Your task to perform on an android device: Open Youtube and go to "Your channel" Image 0: 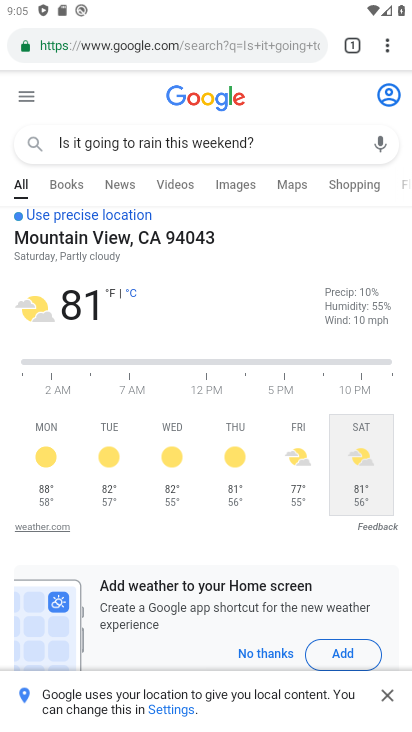
Step 0: press home button
Your task to perform on an android device: Open Youtube and go to "Your channel" Image 1: 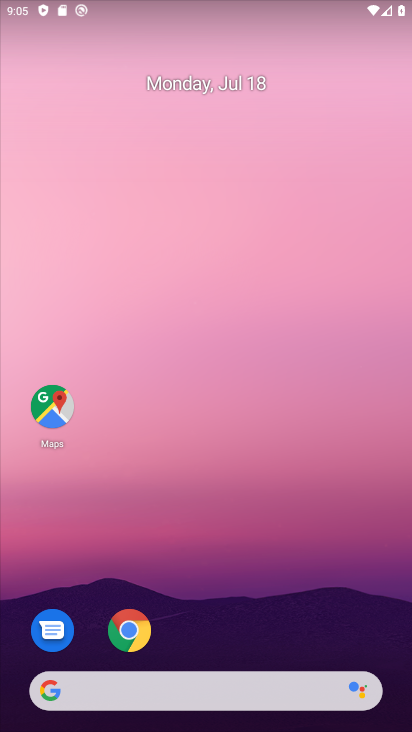
Step 1: drag from (183, 710) to (253, 122)
Your task to perform on an android device: Open Youtube and go to "Your channel" Image 2: 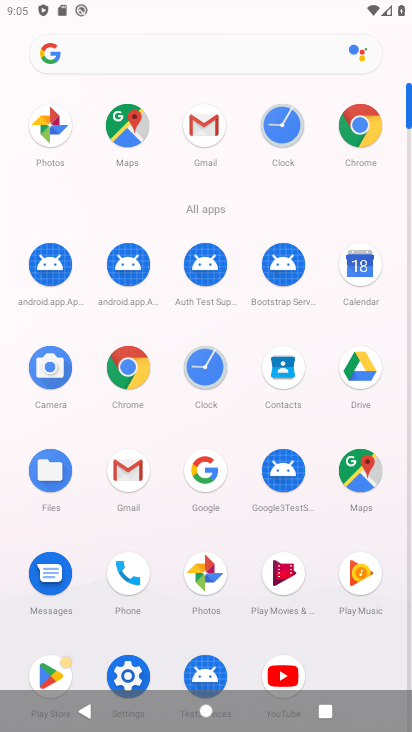
Step 2: click (285, 667)
Your task to perform on an android device: Open Youtube and go to "Your channel" Image 3: 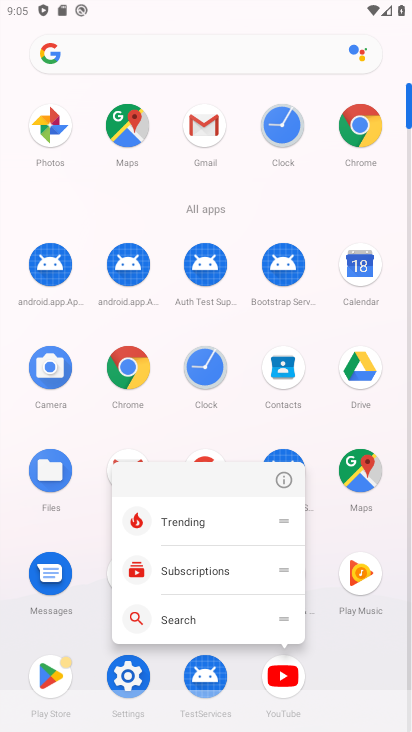
Step 3: click (292, 685)
Your task to perform on an android device: Open Youtube and go to "Your channel" Image 4: 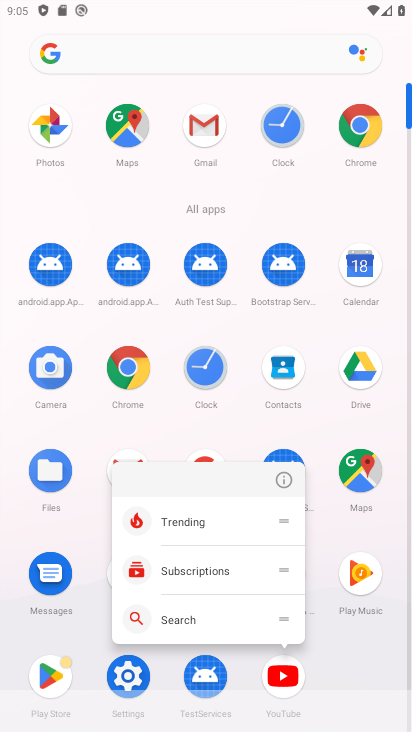
Step 4: click (292, 684)
Your task to perform on an android device: Open Youtube and go to "Your channel" Image 5: 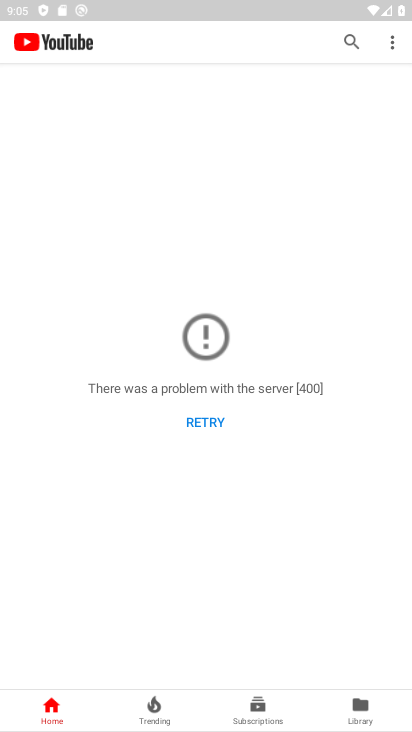
Step 5: click (356, 711)
Your task to perform on an android device: Open Youtube and go to "Your channel" Image 6: 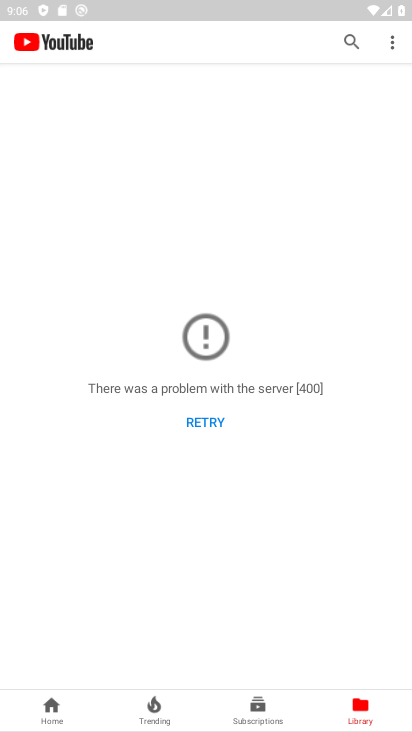
Step 6: task complete